Your task to perform on an android device: all mails in gmail Image 0: 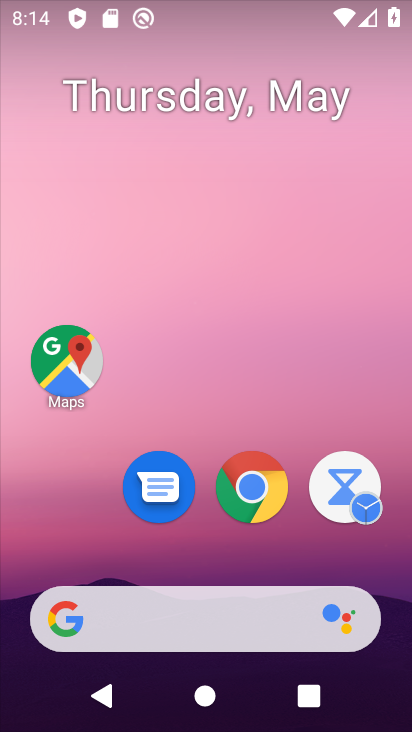
Step 0: drag from (216, 549) to (262, 191)
Your task to perform on an android device: all mails in gmail Image 1: 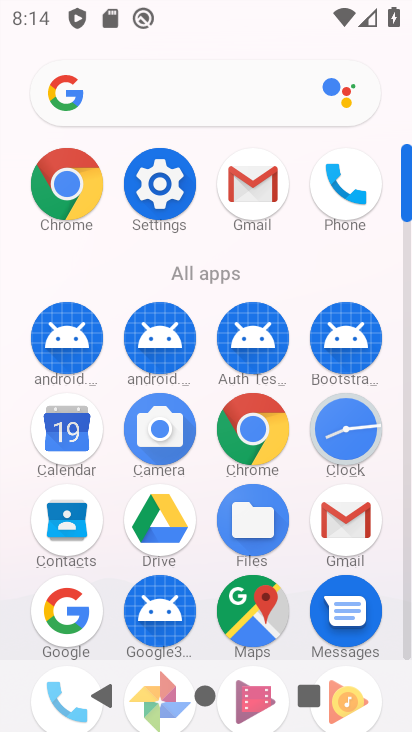
Step 1: click (363, 524)
Your task to perform on an android device: all mails in gmail Image 2: 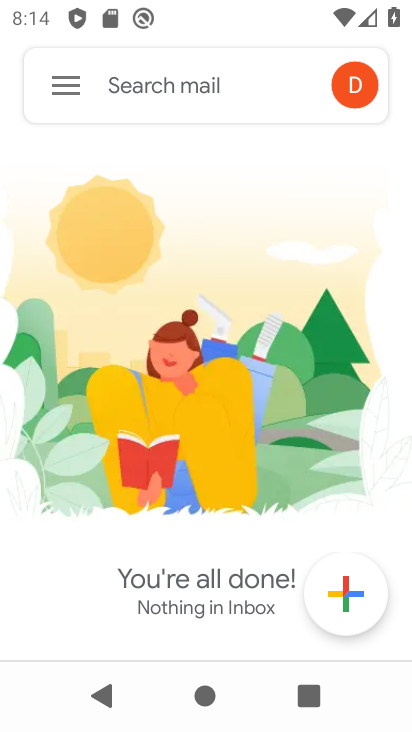
Step 2: click (82, 86)
Your task to perform on an android device: all mails in gmail Image 3: 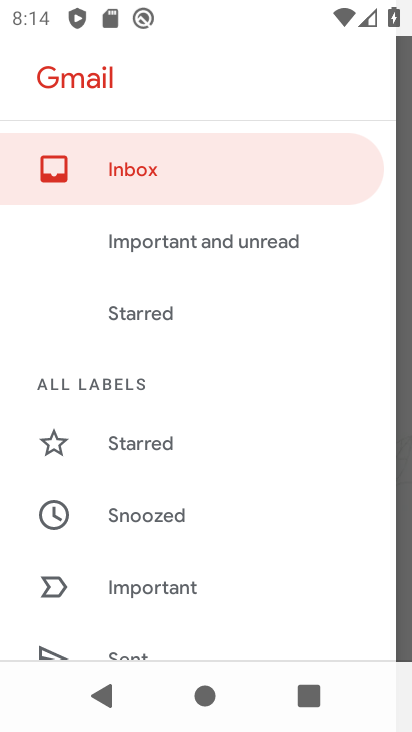
Step 3: drag from (284, 526) to (289, 408)
Your task to perform on an android device: all mails in gmail Image 4: 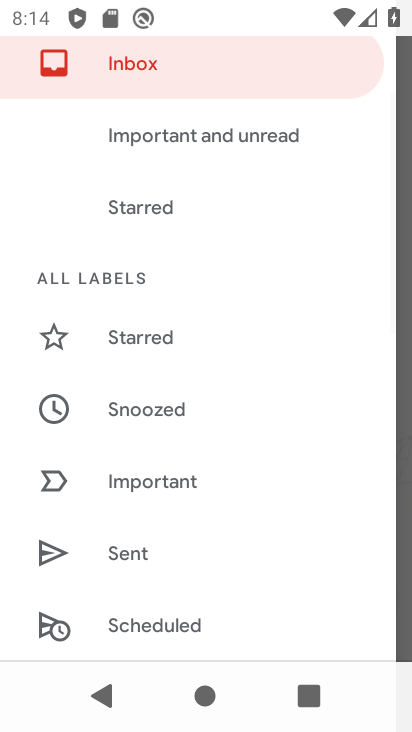
Step 4: drag from (308, 617) to (332, 423)
Your task to perform on an android device: all mails in gmail Image 5: 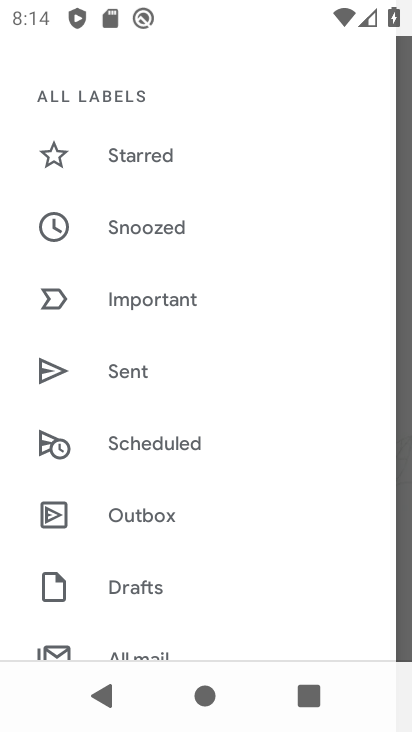
Step 5: drag from (325, 624) to (326, 471)
Your task to perform on an android device: all mails in gmail Image 6: 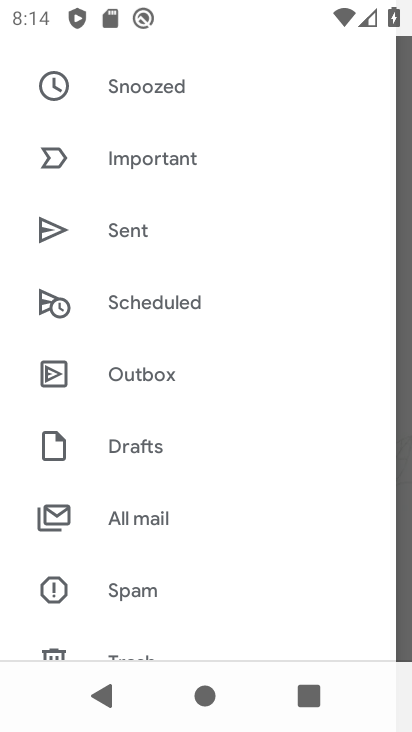
Step 6: drag from (331, 604) to (317, 474)
Your task to perform on an android device: all mails in gmail Image 7: 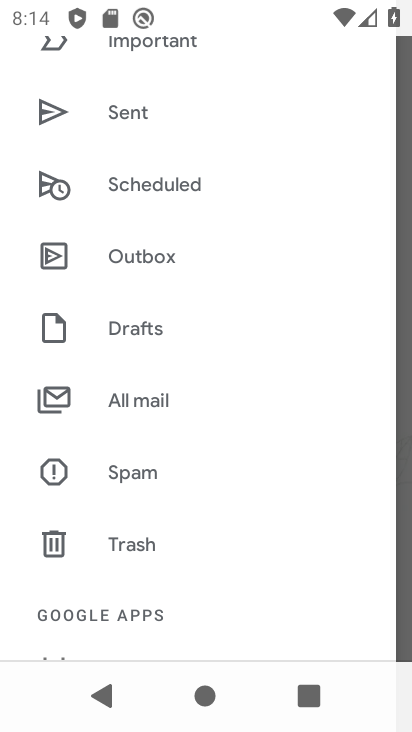
Step 7: drag from (339, 590) to (362, 460)
Your task to perform on an android device: all mails in gmail Image 8: 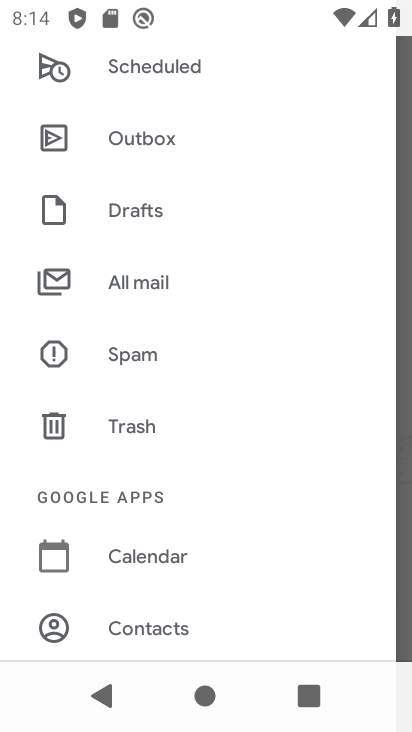
Step 8: drag from (351, 614) to (345, 456)
Your task to perform on an android device: all mails in gmail Image 9: 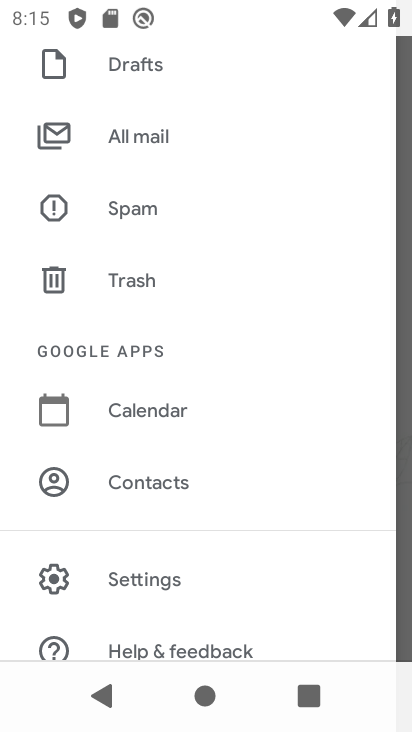
Step 9: drag from (332, 615) to (339, 475)
Your task to perform on an android device: all mails in gmail Image 10: 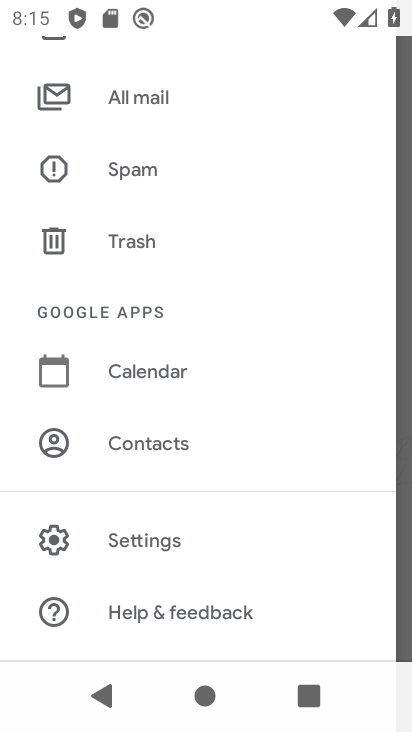
Step 10: drag from (279, 402) to (273, 503)
Your task to perform on an android device: all mails in gmail Image 11: 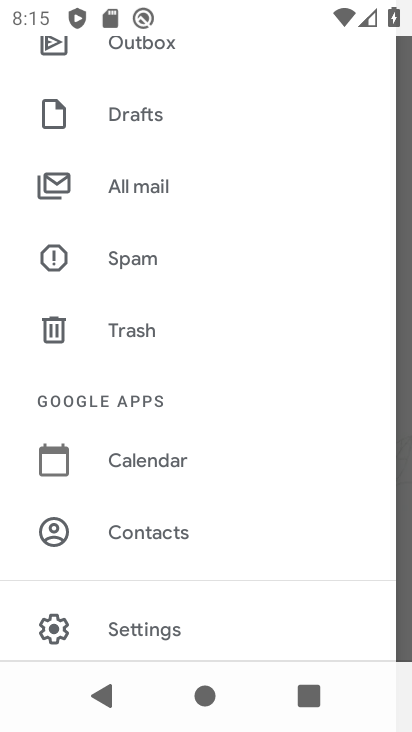
Step 11: drag from (275, 342) to (278, 471)
Your task to perform on an android device: all mails in gmail Image 12: 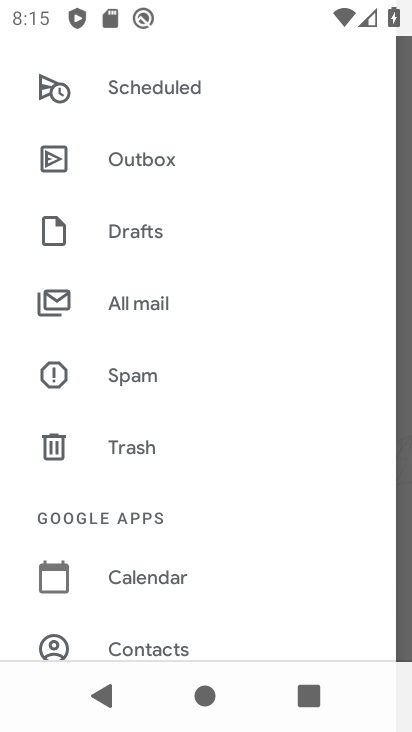
Step 12: drag from (282, 321) to (273, 431)
Your task to perform on an android device: all mails in gmail Image 13: 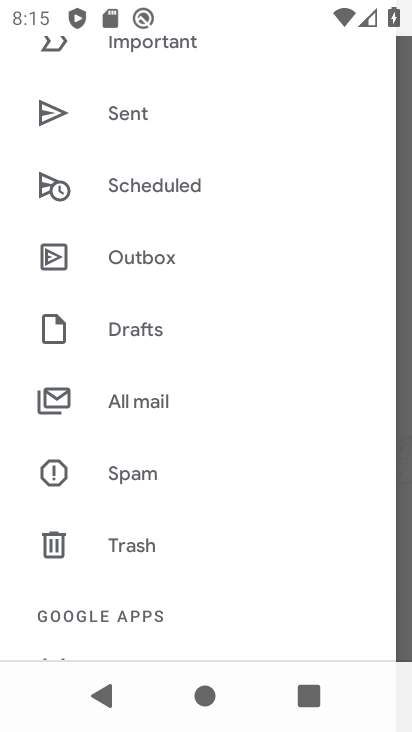
Step 13: click (213, 421)
Your task to perform on an android device: all mails in gmail Image 14: 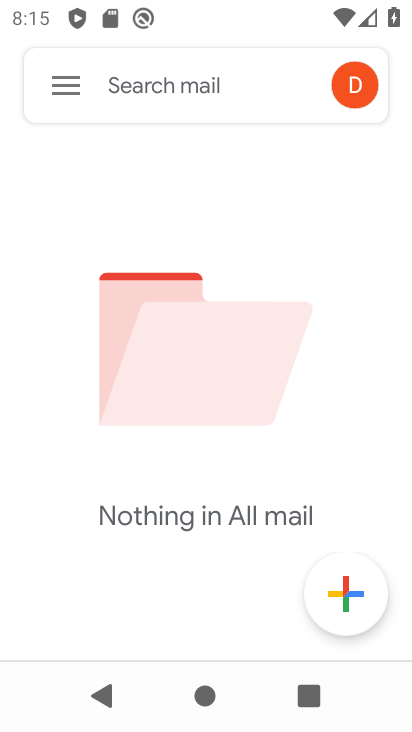
Step 14: task complete